Your task to perform on an android device: Go to battery settings Image 0: 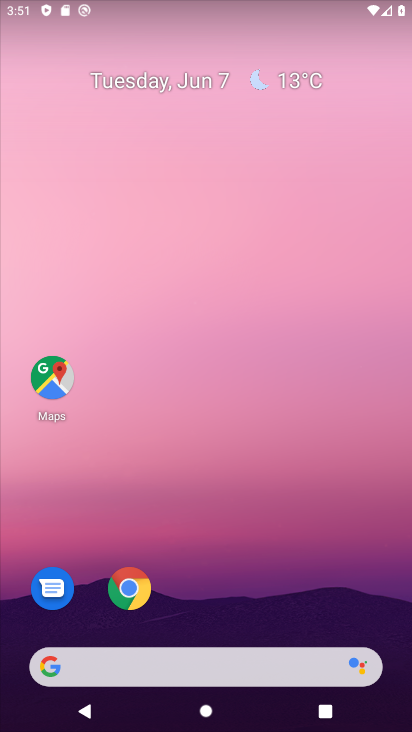
Step 0: drag from (192, 680) to (282, 170)
Your task to perform on an android device: Go to battery settings Image 1: 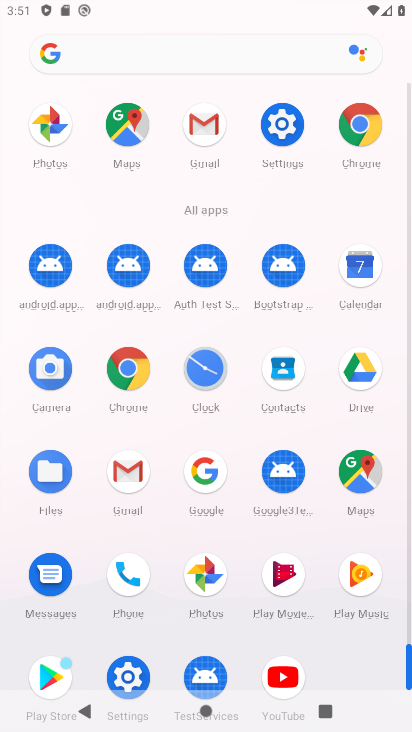
Step 1: click (129, 674)
Your task to perform on an android device: Go to battery settings Image 2: 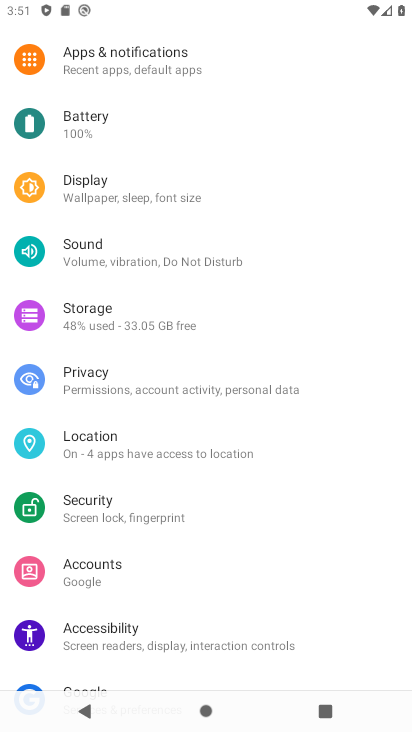
Step 2: click (122, 132)
Your task to perform on an android device: Go to battery settings Image 3: 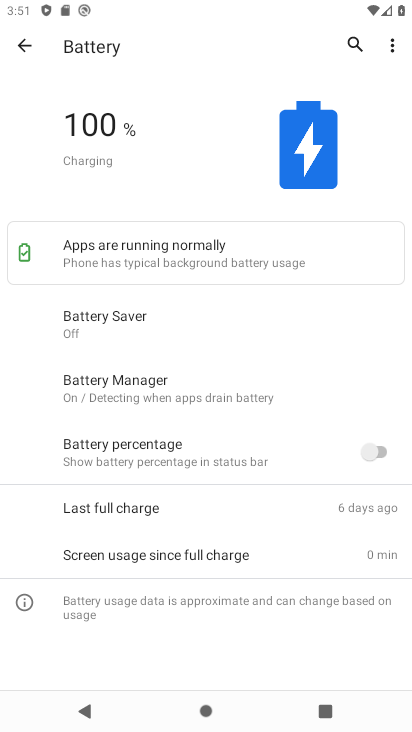
Step 3: task complete